Your task to perform on an android device: turn on improve location accuracy Image 0: 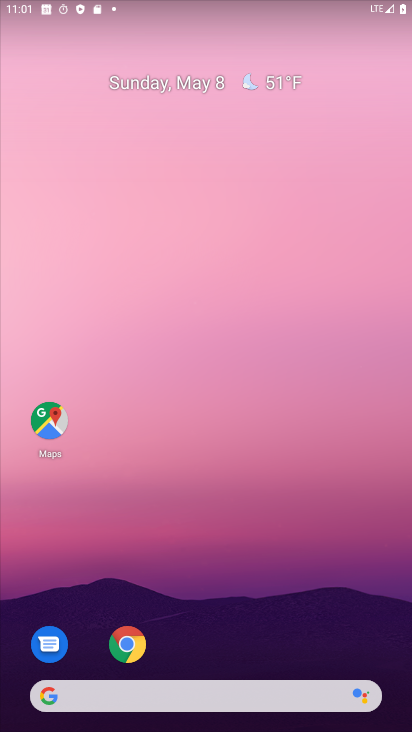
Step 0: drag from (183, 612) to (230, 121)
Your task to perform on an android device: turn on improve location accuracy Image 1: 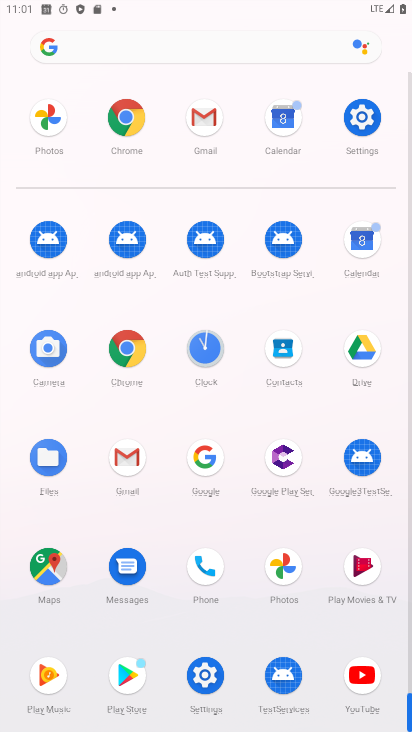
Step 1: click (198, 674)
Your task to perform on an android device: turn on improve location accuracy Image 2: 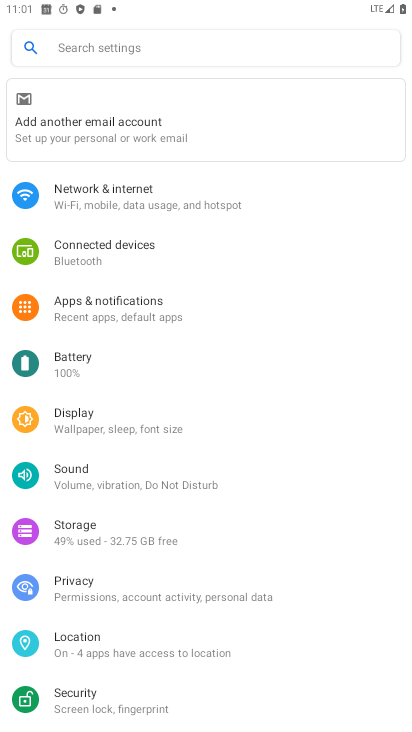
Step 2: drag from (141, 553) to (183, 199)
Your task to perform on an android device: turn on improve location accuracy Image 3: 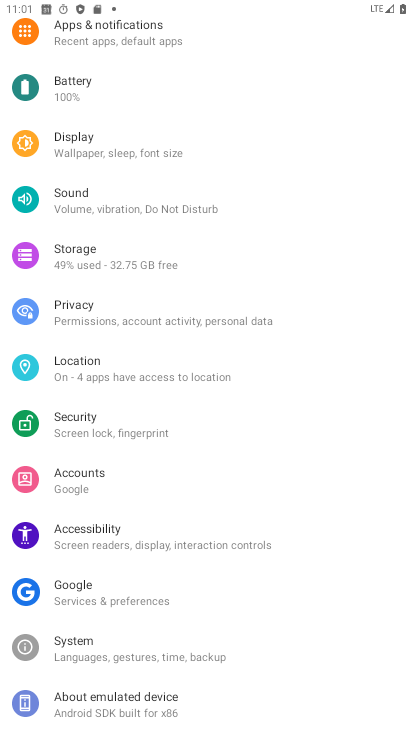
Step 3: click (128, 362)
Your task to perform on an android device: turn on improve location accuracy Image 4: 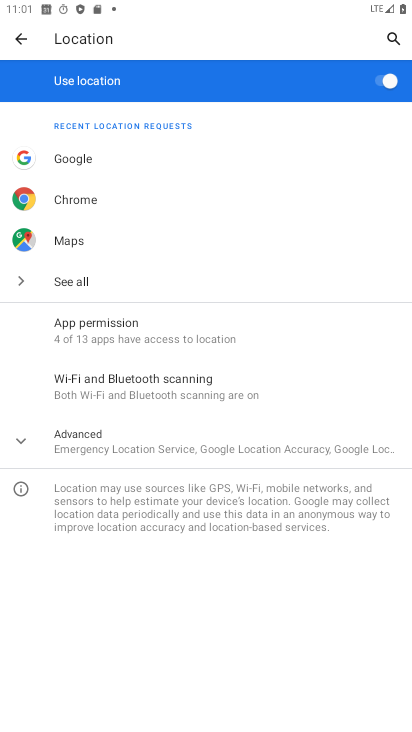
Step 4: click (129, 441)
Your task to perform on an android device: turn on improve location accuracy Image 5: 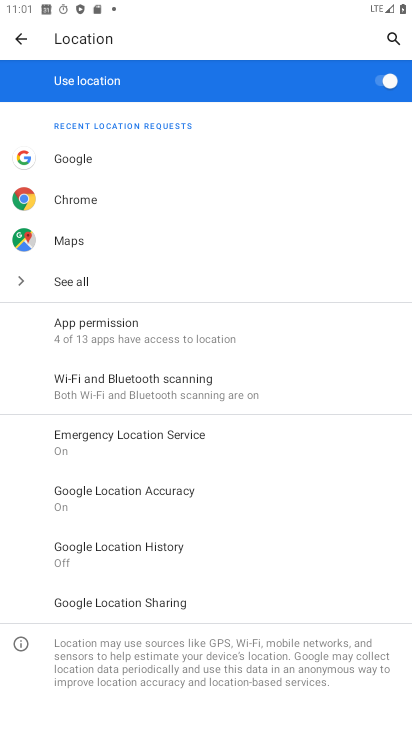
Step 5: click (173, 494)
Your task to perform on an android device: turn on improve location accuracy Image 6: 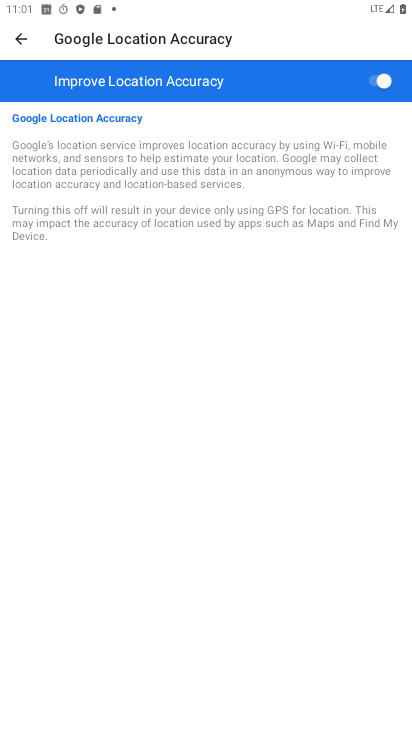
Step 6: task complete